Your task to perform on an android device: Open Google Maps and go to "Timeline" Image 0: 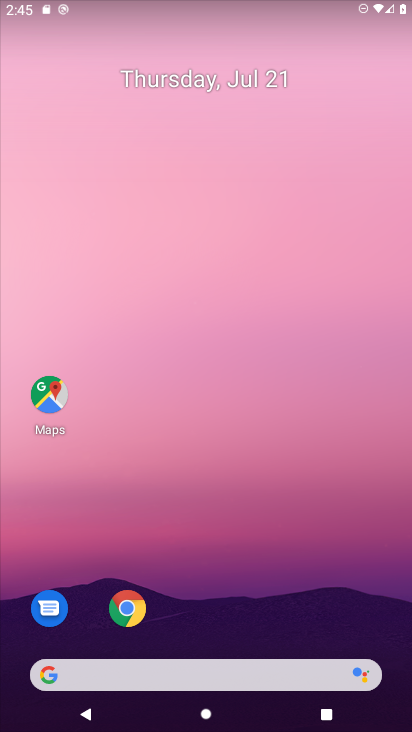
Step 0: click (56, 406)
Your task to perform on an android device: Open Google Maps and go to "Timeline" Image 1: 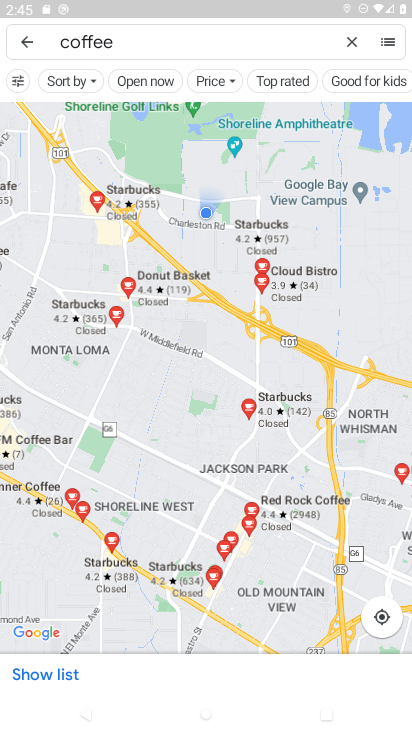
Step 1: click (36, 46)
Your task to perform on an android device: Open Google Maps and go to "Timeline" Image 2: 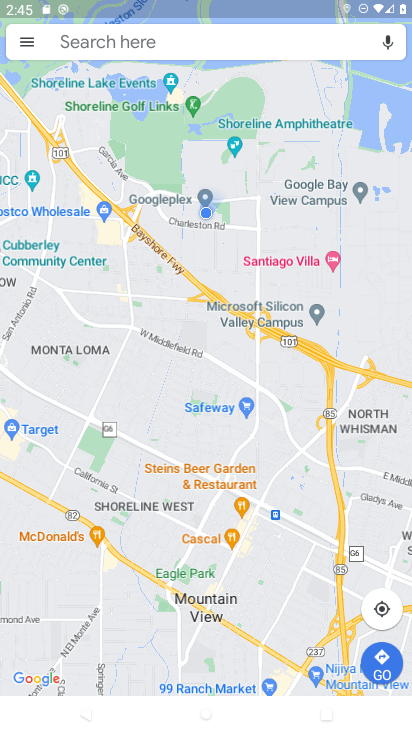
Step 2: click (36, 46)
Your task to perform on an android device: Open Google Maps and go to "Timeline" Image 3: 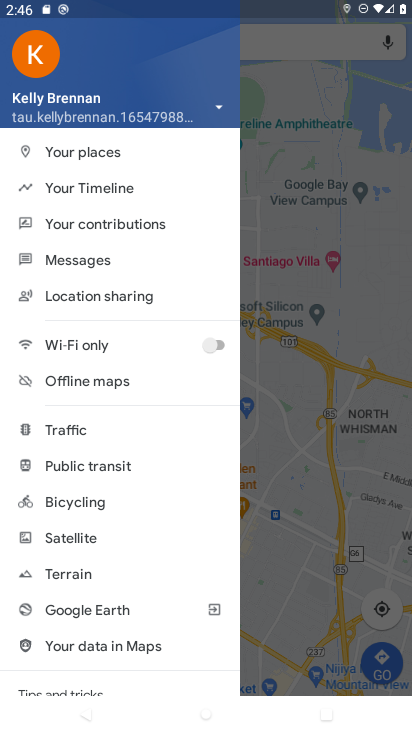
Step 3: click (96, 192)
Your task to perform on an android device: Open Google Maps and go to "Timeline" Image 4: 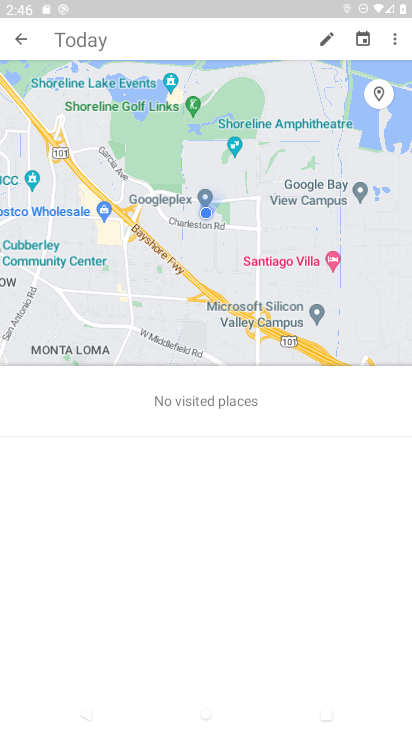
Step 4: task complete